Your task to perform on an android device: open a bookmark in the chrome app Image 0: 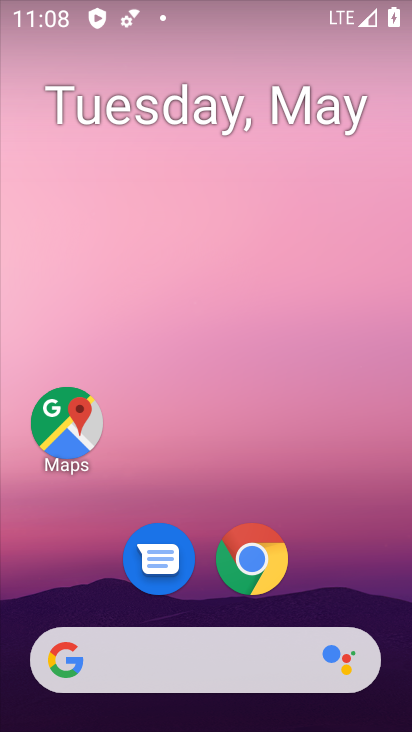
Step 0: drag from (351, 593) to (356, 191)
Your task to perform on an android device: open a bookmark in the chrome app Image 1: 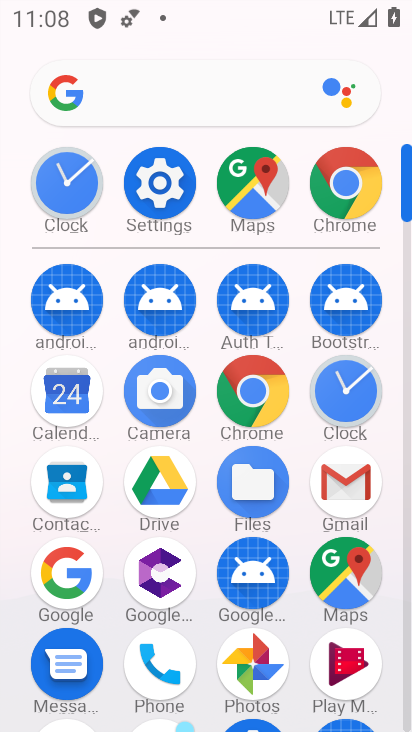
Step 1: click (270, 397)
Your task to perform on an android device: open a bookmark in the chrome app Image 2: 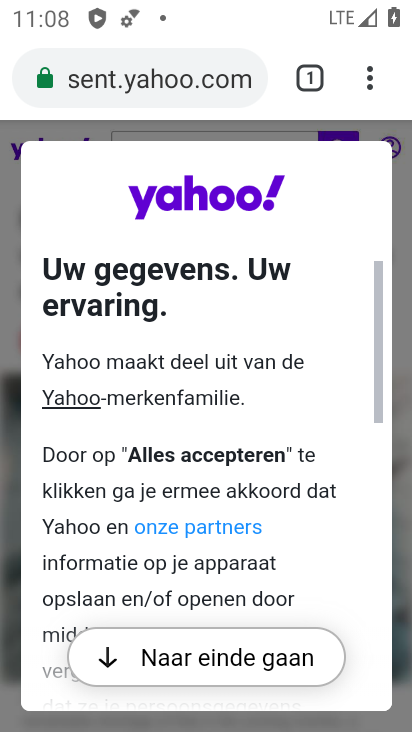
Step 2: task complete